Your task to perform on an android device: clear history in the chrome app Image 0: 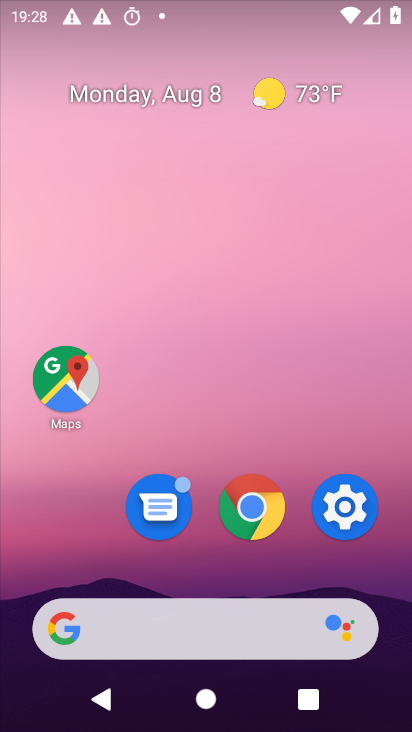
Step 0: drag from (282, 651) to (303, 193)
Your task to perform on an android device: clear history in the chrome app Image 1: 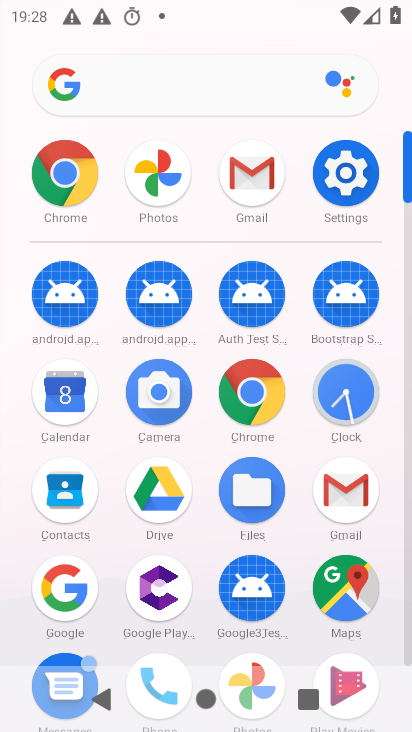
Step 1: click (57, 173)
Your task to perform on an android device: clear history in the chrome app Image 2: 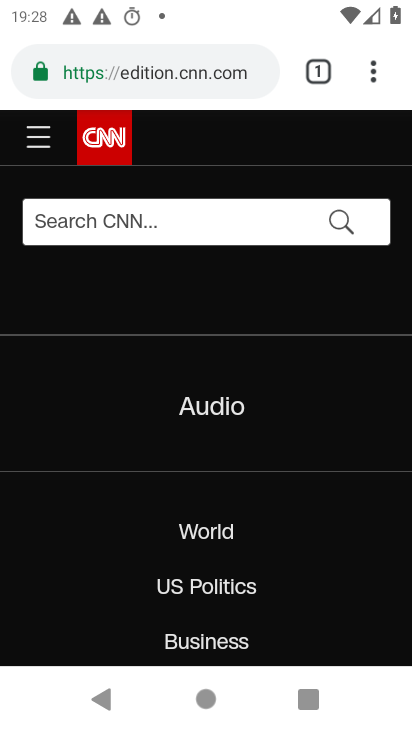
Step 2: click (379, 79)
Your task to perform on an android device: clear history in the chrome app Image 3: 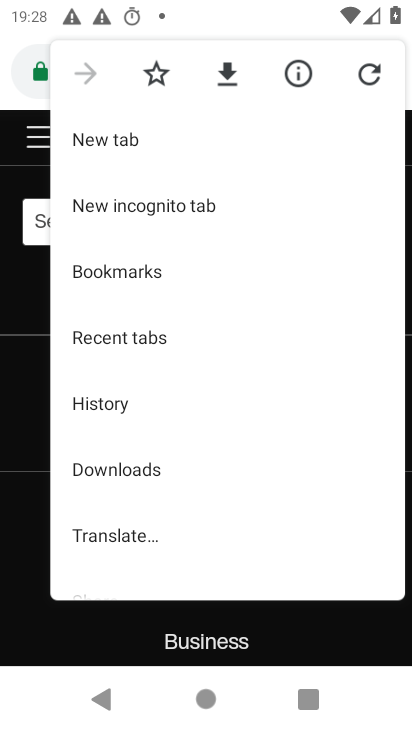
Step 3: drag from (120, 514) to (139, 364)
Your task to perform on an android device: clear history in the chrome app Image 4: 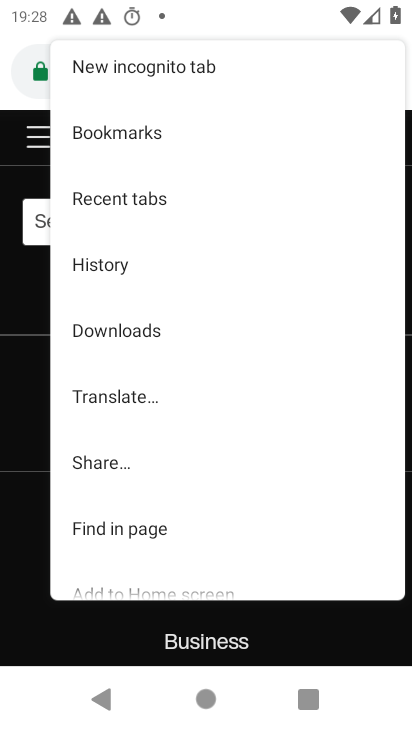
Step 4: drag from (132, 541) to (175, 356)
Your task to perform on an android device: clear history in the chrome app Image 5: 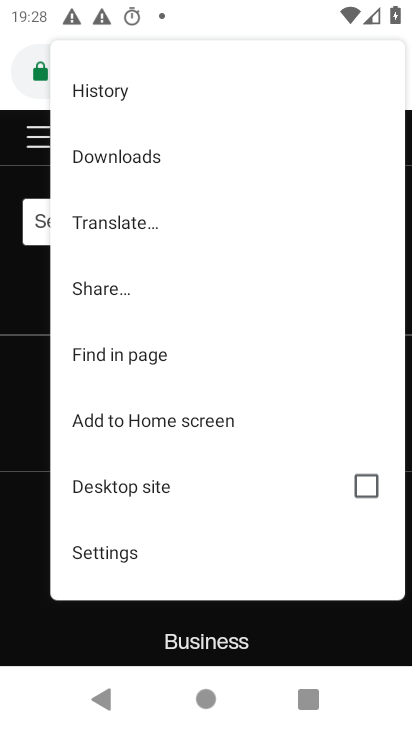
Step 5: click (152, 561)
Your task to perform on an android device: clear history in the chrome app Image 6: 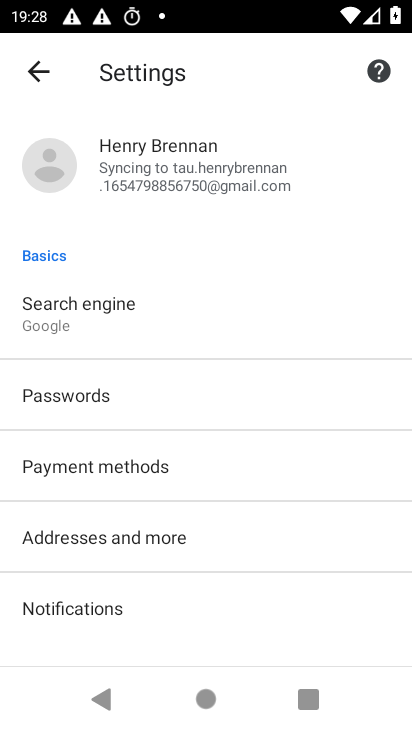
Step 6: drag from (159, 614) to (196, 444)
Your task to perform on an android device: clear history in the chrome app Image 7: 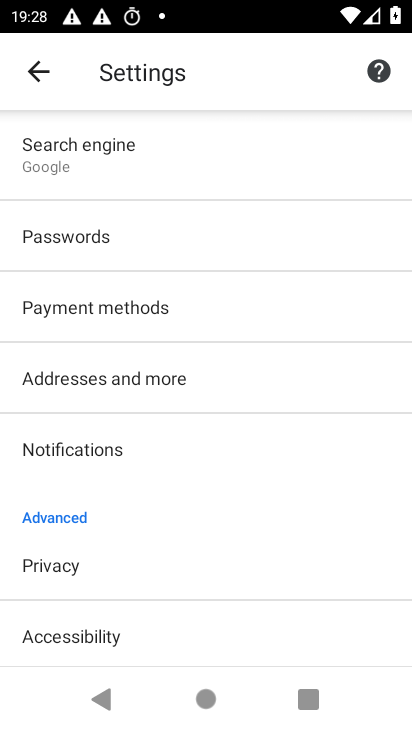
Step 7: drag from (140, 626) to (176, 439)
Your task to perform on an android device: clear history in the chrome app Image 8: 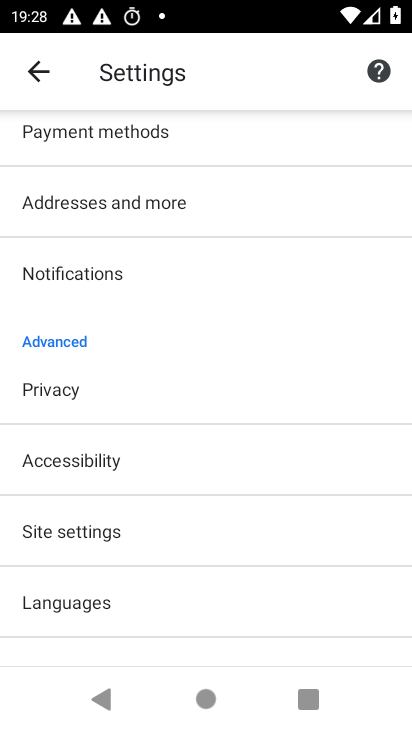
Step 8: drag from (132, 624) to (161, 558)
Your task to perform on an android device: clear history in the chrome app Image 9: 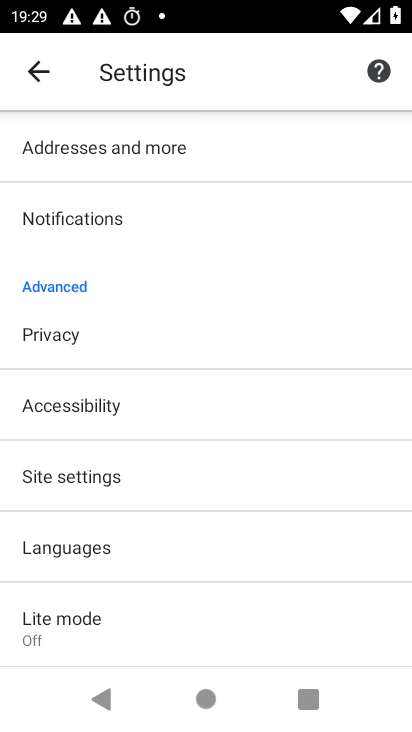
Step 9: click (68, 347)
Your task to perform on an android device: clear history in the chrome app Image 10: 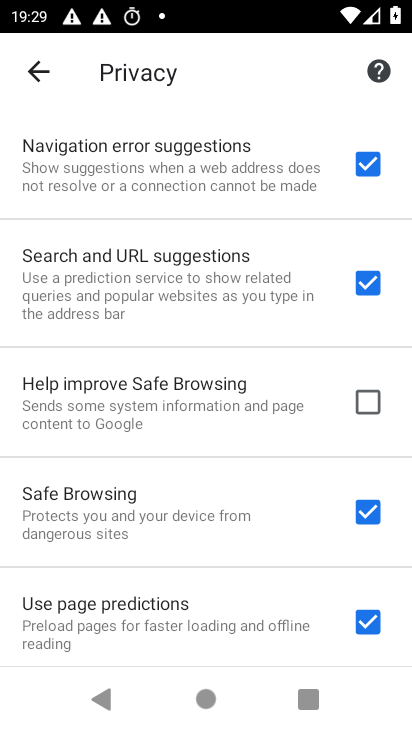
Step 10: drag from (191, 583) to (171, 298)
Your task to perform on an android device: clear history in the chrome app Image 11: 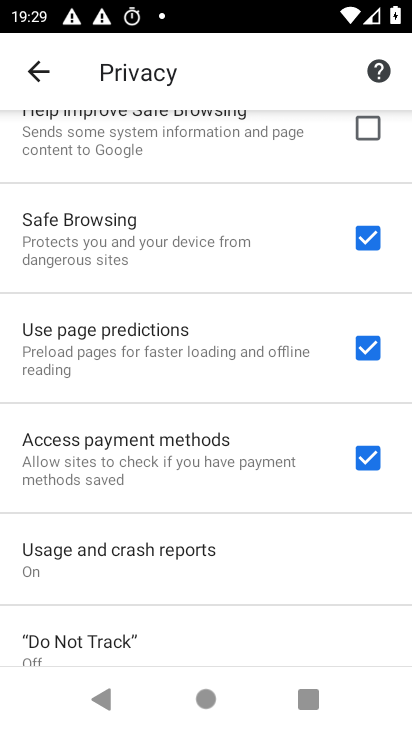
Step 11: drag from (147, 638) to (144, 405)
Your task to perform on an android device: clear history in the chrome app Image 12: 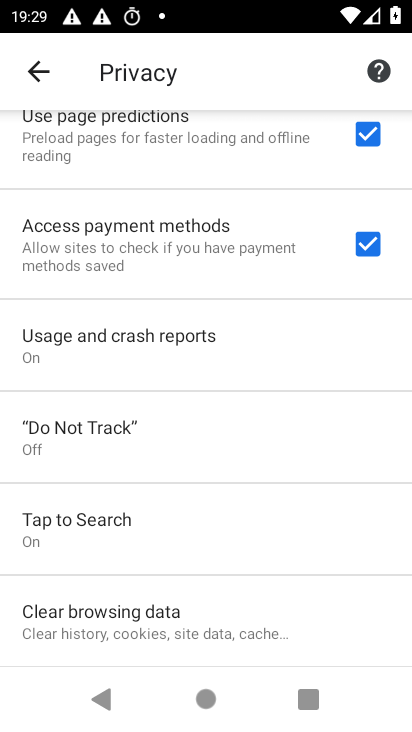
Step 12: click (149, 602)
Your task to perform on an android device: clear history in the chrome app Image 13: 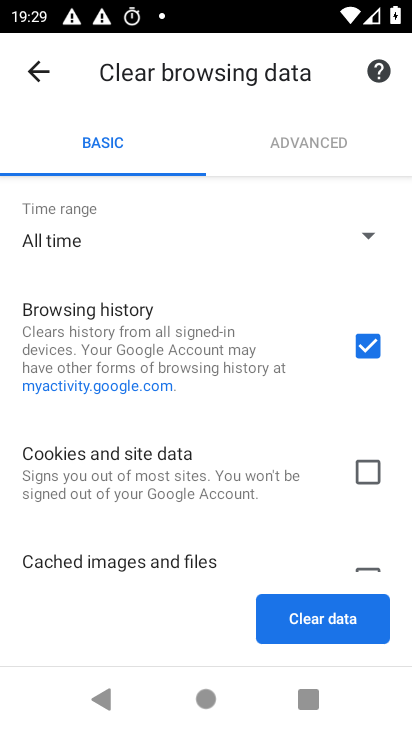
Step 13: click (323, 613)
Your task to perform on an android device: clear history in the chrome app Image 14: 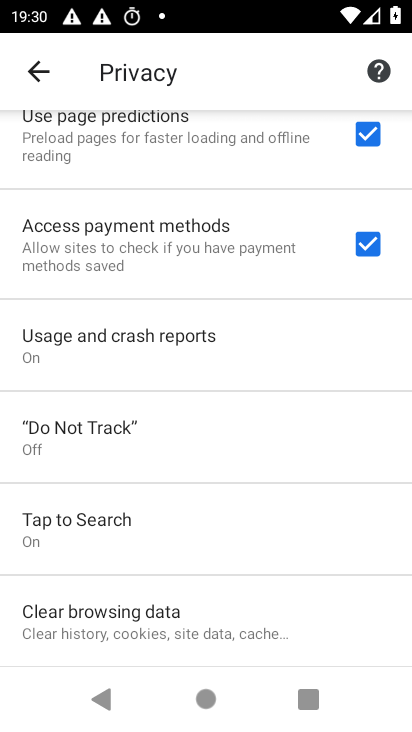
Step 14: task complete